Your task to perform on an android device: toggle pop-ups in chrome Image 0: 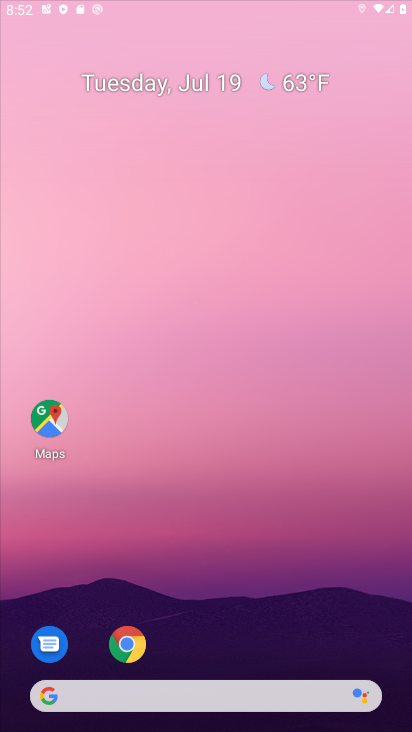
Step 0: click (167, 170)
Your task to perform on an android device: toggle pop-ups in chrome Image 1: 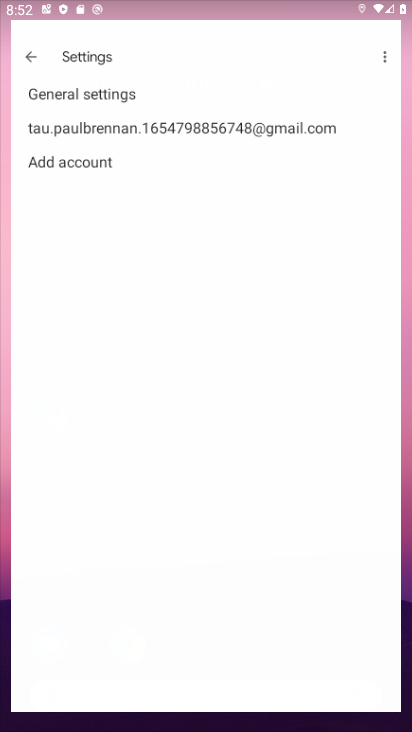
Step 1: click (216, 197)
Your task to perform on an android device: toggle pop-ups in chrome Image 2: 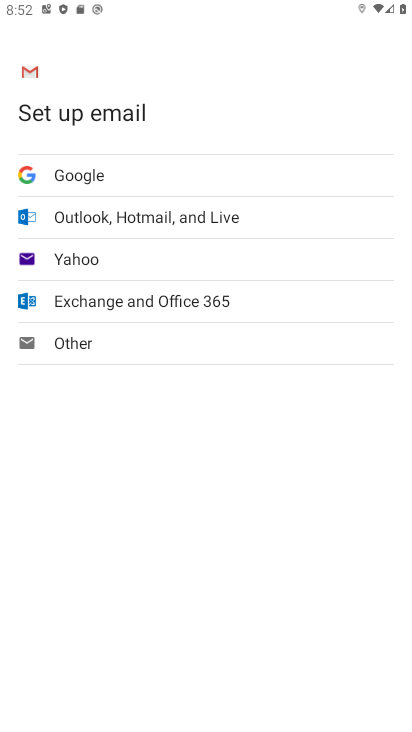
Step 2: press back button
Your task to perform on an android device: toggle pop-ups in chrome Image 3: 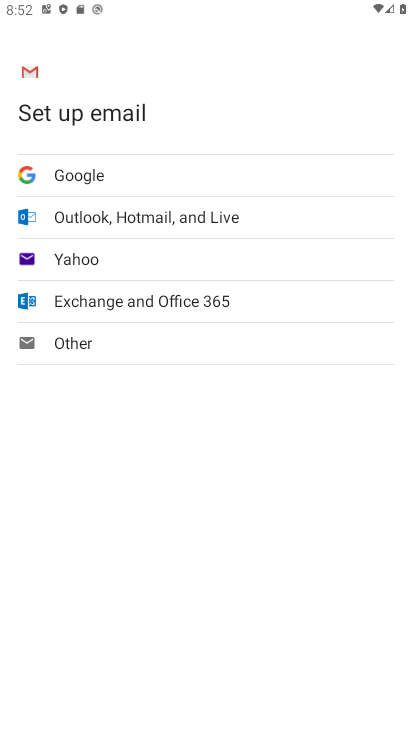
Step 3: press back button
Your task to perform on an android device: toggle pop-ups in chrome Image 4: 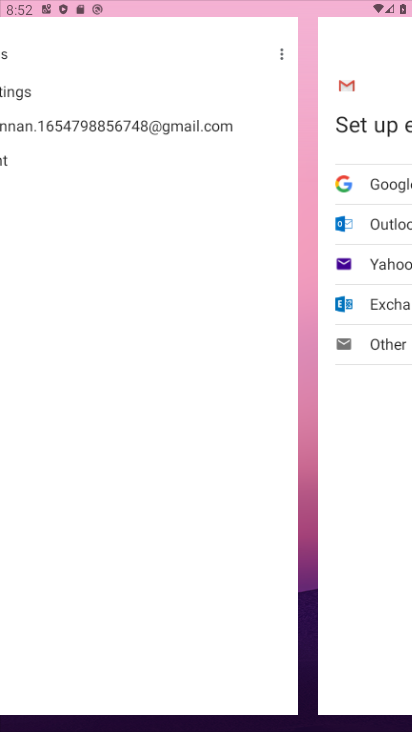
Step 4: press back button
Your task to perform on an android device: toggle pop-ups in chrome Image 5: 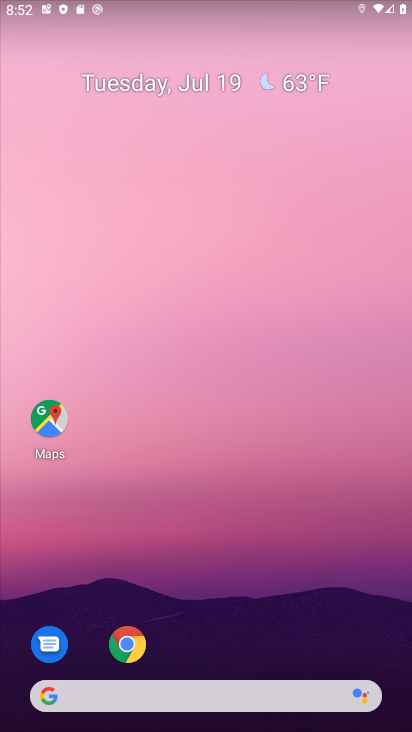
Step 5: drag from (178, 600) to (147, 203)
Your task to perform on an android device: toggle pop-ups in chrome Image 6: 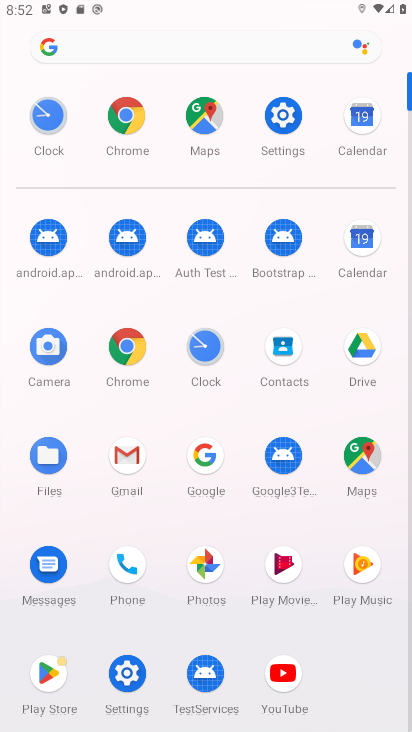
Step 6: click (129, 120)
Your task to perform on an android device: toggle pop-ups in chrome Image 7: 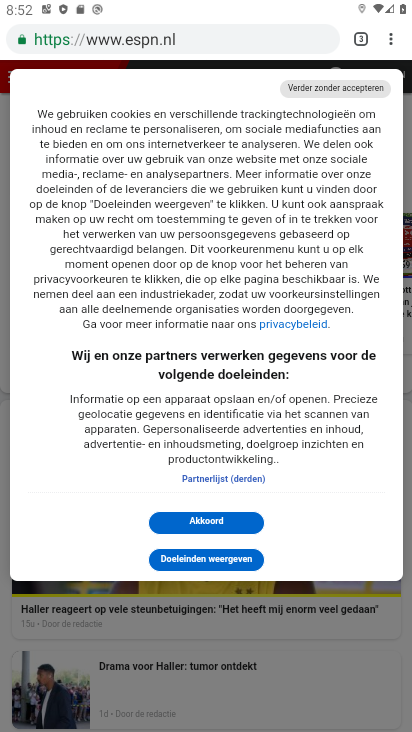
Step 7: drag from (391, 39) to (274, 471)
Your task to perform on an android device: toggle pop-ups in chrome Image 8: 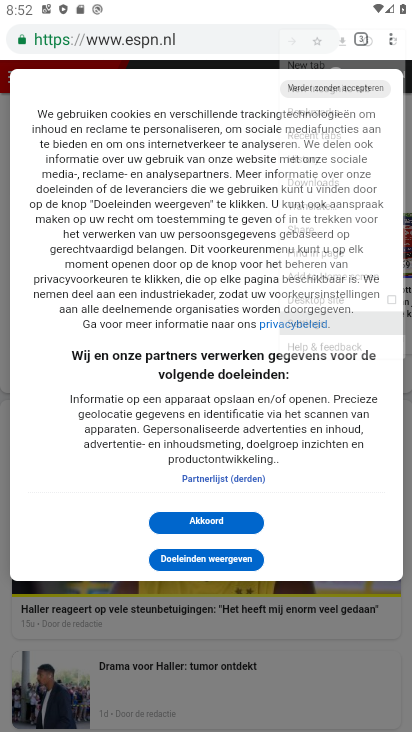
Step 8: click (274, 471)
Your task to perform on an android device: toggle pop-ups in chrome Image 9: 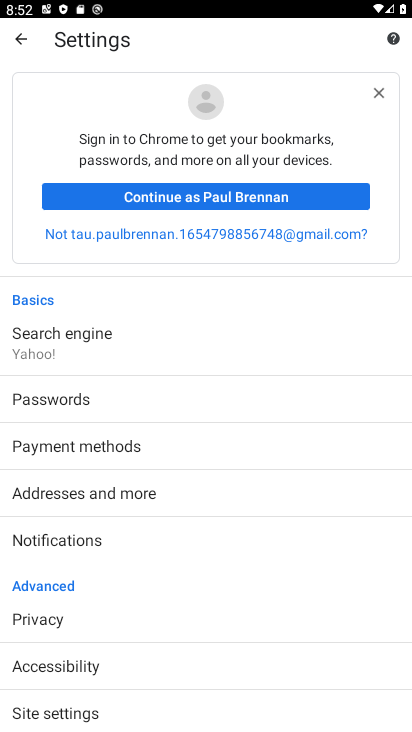
Step 9: drag from (84, 591) to (26, 120)
Your task to perform on an android device: toggle pop-ups in chrome Image 10: 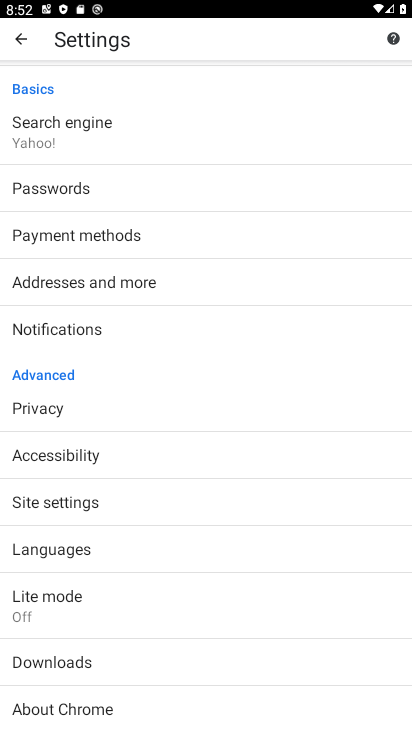
Step 10: click (38, 503)
Your task to perform on an android device: toggle pop-ups in chrome Image 11: 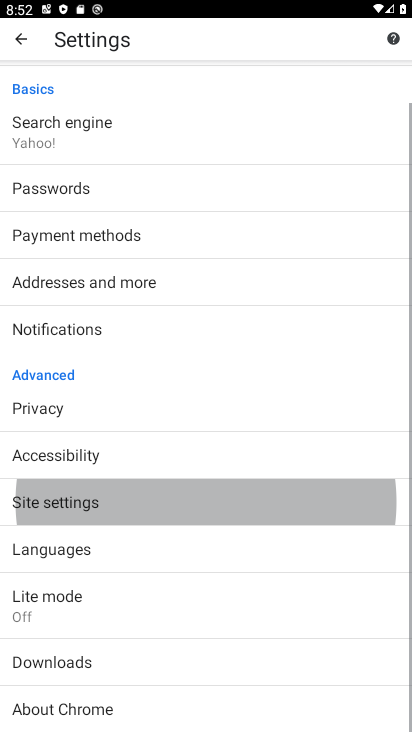
Step 11: click (47, 497)
Your task to perform on an android device: toggle pop-ups in chrome Image 12: 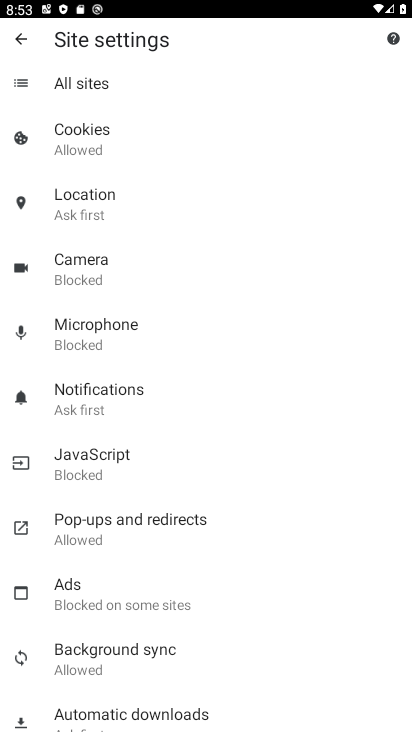
Step 12: click (109, 523)
Your task to perform on an android device: toggle pop-ups in chrome Image 13: 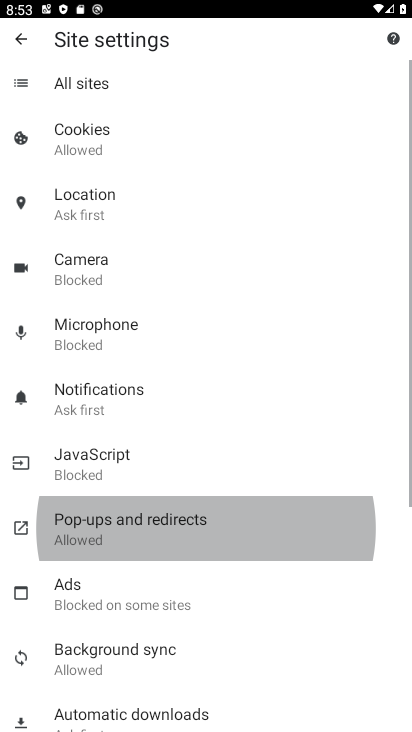
Step 13: click (109, 523)
Your task to perform on an android device: toggle pop-ups in chrome Image 14: 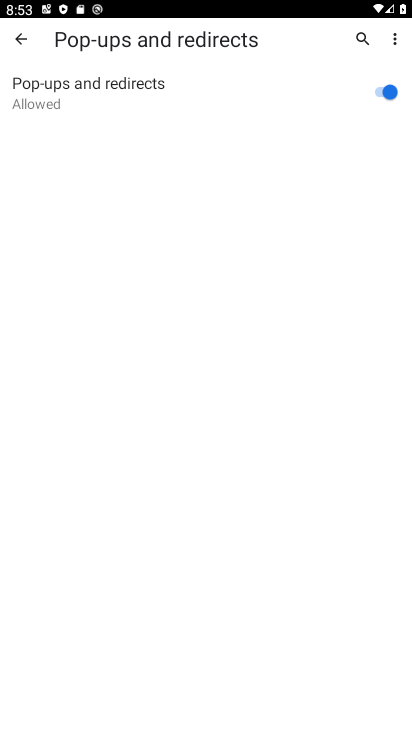
Step 14: click (399, 102)
Your task to perform on an android device: toggle pop-ups in chrome Image 15: 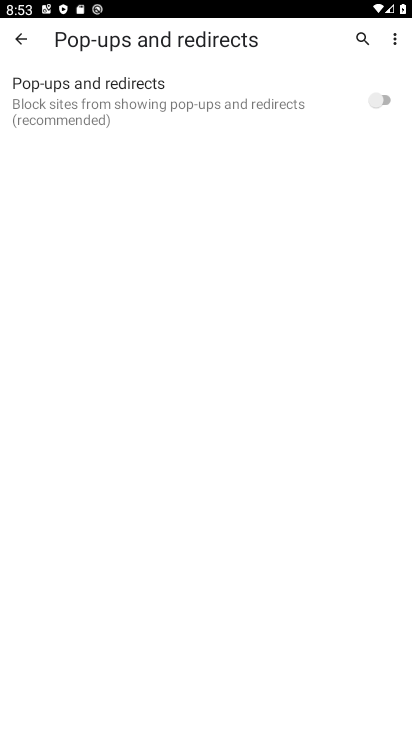
Step 15: task complete